Your task to perform on an android device: What's the weather going to be tomorrow? Image 0: 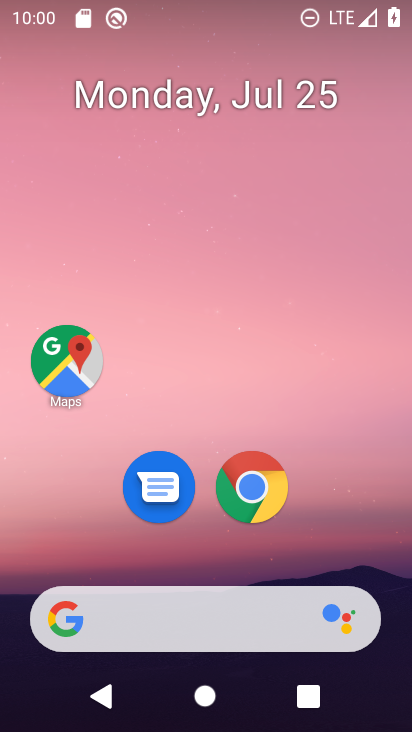
Step 0: click (171, 609)
Your task to perform on an android device: What's the weather going to be tomorrow? Image 1: 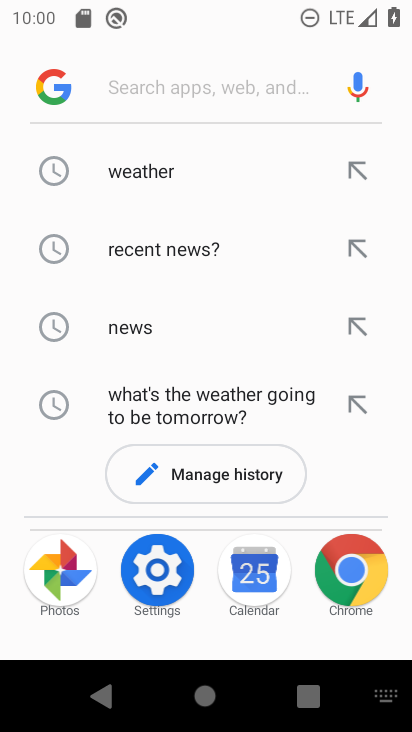
Step 1: click (130, 162)
Your task to perform on an android device: What's the weather going to be tomorrow? Image 2: 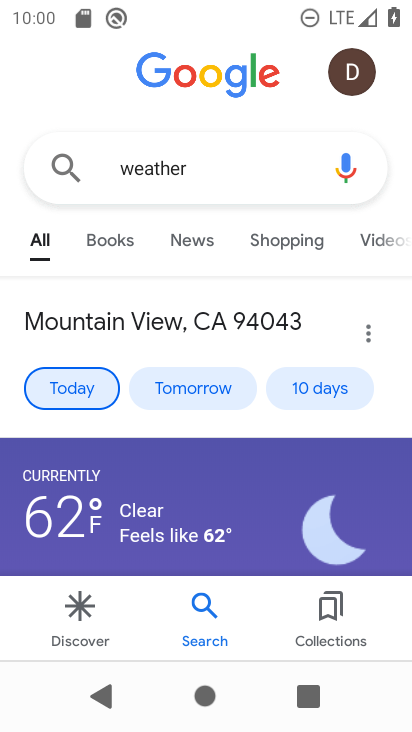
Step 2: click (163, 399)
Your task to perform on an android device: What's the weather going to be tomorrow? Image 3: 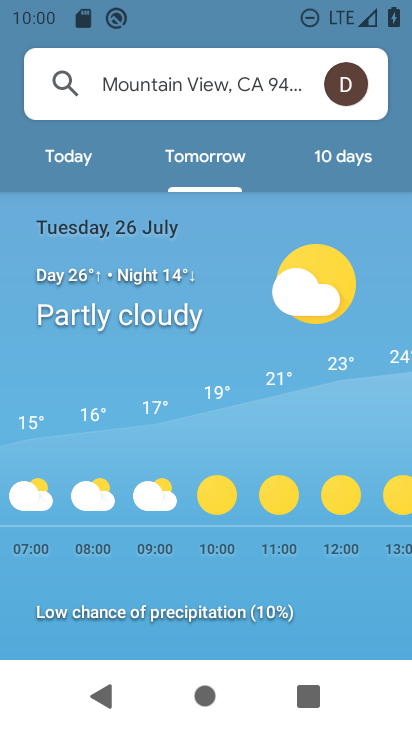
Step 3: task complete